Your task to perform on an android device: turn on sleep mode Image 0: 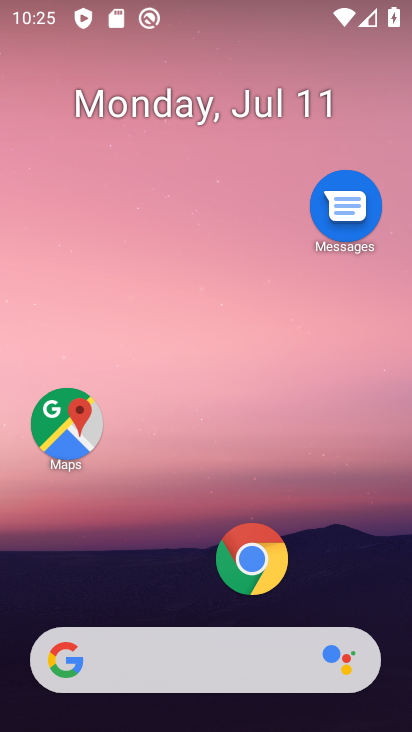
Step 0: drag from (354, 567) to (354, 231)
Your task to perform on an android device: turn on sleep mode Image 1: 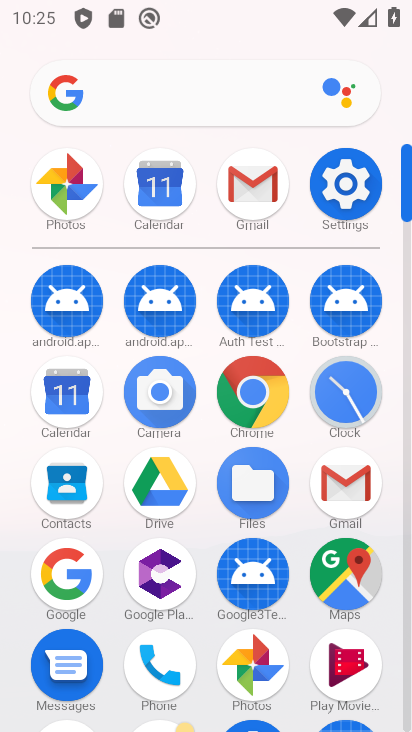
Step 1: click (348, 192)
Your task to perform on an android device: turn on sleep mode Image 2: 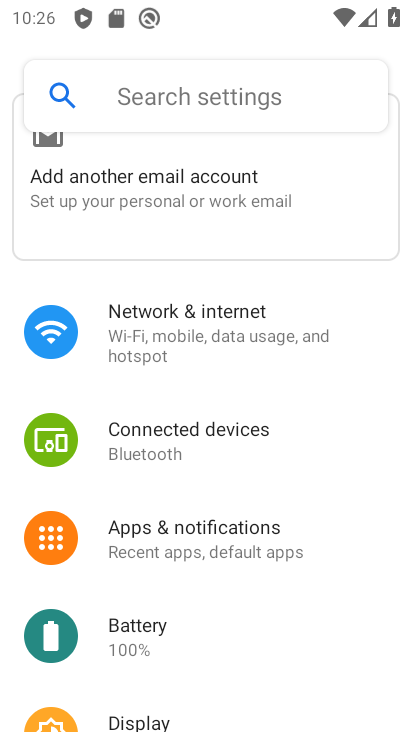
Step 2: drag from (341, 514) to (325, 399)
Your task to perform on an android device: turn on sleep mode Image 3: 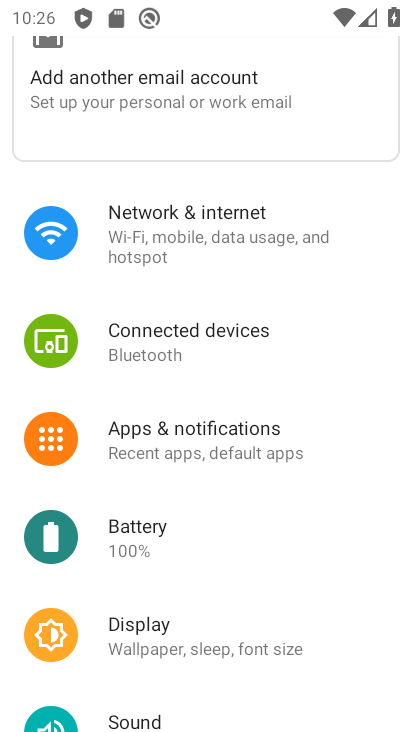
Step 3: drag from (324, 554) to (327, 414)
Your task to perform on an android device: turn on sleep mode Image 4: 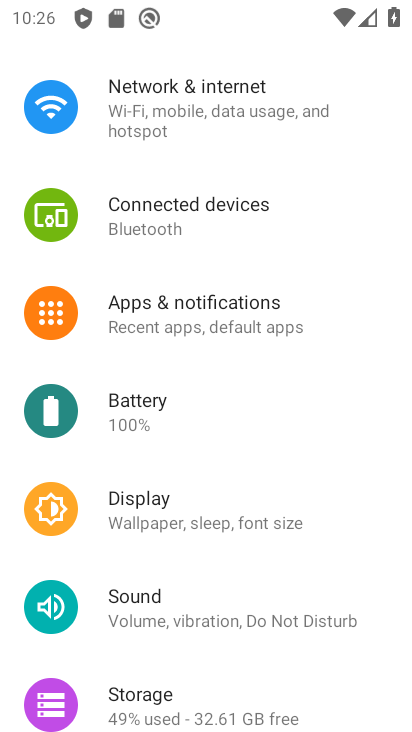
Step 4: drag from (324, 518) to (321, 360)
Your task to perform on an android device: turn on sleep mode Image 5: 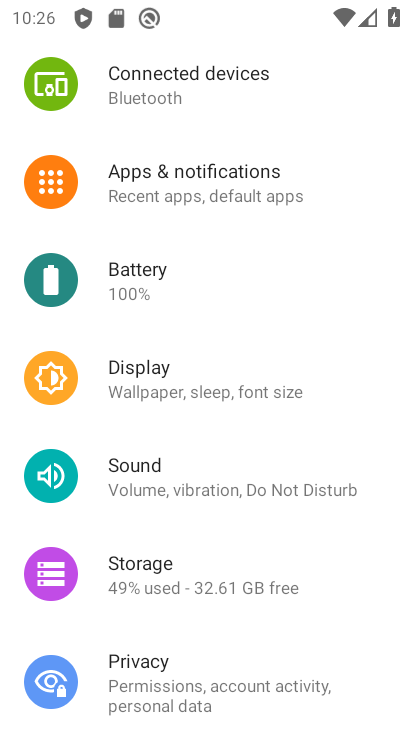
Step 5: drag from (323, 561) to (324, 315)
Your task to perform on an android device: turn on sleep mode Image 6: 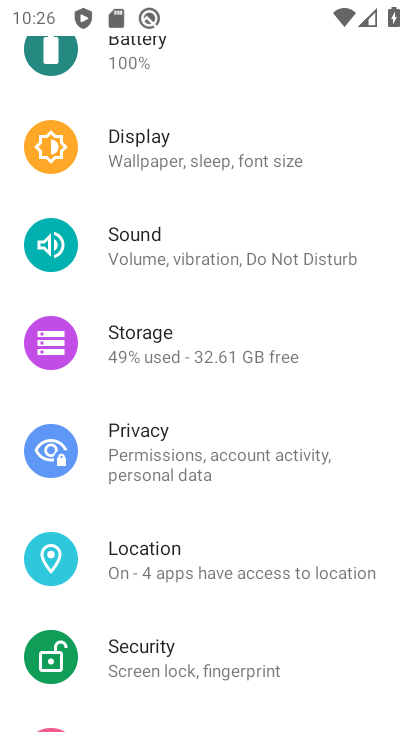
Step 6: drag from (348, 515) to (360, 319)
Your task to perform on an android device: turn on sleep mode Image 7: 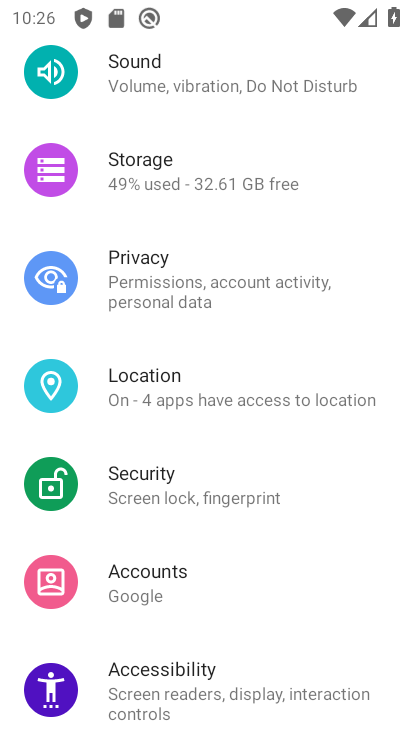
Step 7: drag from (342, 522) to (354, 339)
Your task to perform on an android device: turn on sleep mode Image 8: 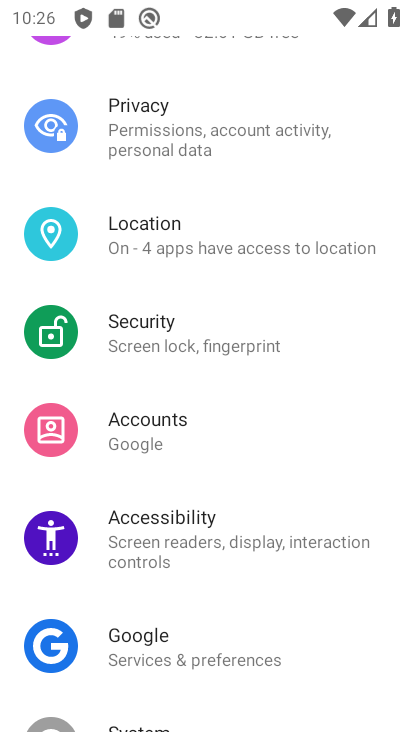
Step 8: drag from (347, 480) to (336, 332)
Your task to perform on an android device: turn on sleep mode Image 9: 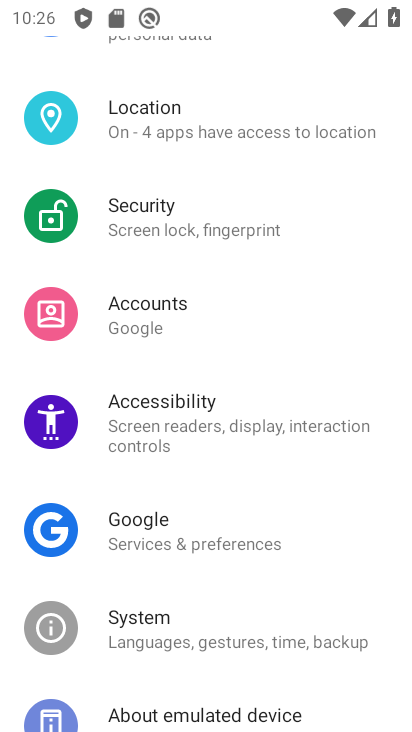
Step 9: drag from (327, 550) to (326, 377)
Your task to perform on an android device: turn on sleep mode Image 10: 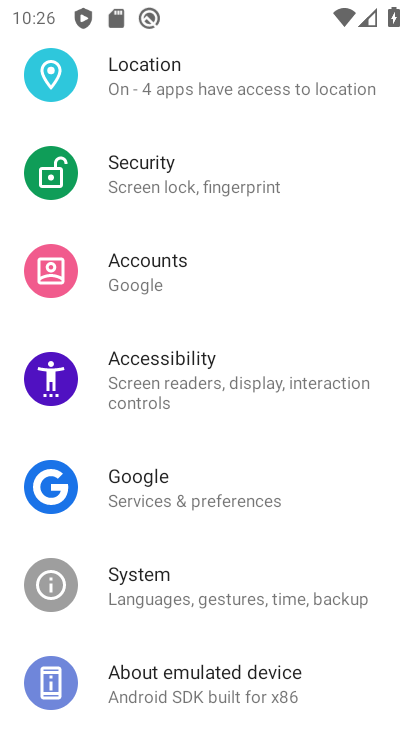
Step 10: drag from (327, 299) to (323, 430)
Your task to perform on an android device: turn on sleep mode Image 11: 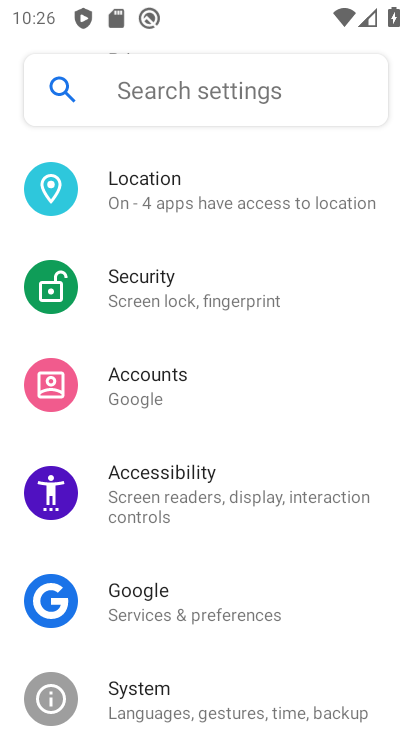
Step 11: drag from (314, 323) to (313, 561)
Your task to perform on an android device: turn on sleep mode Image 12: 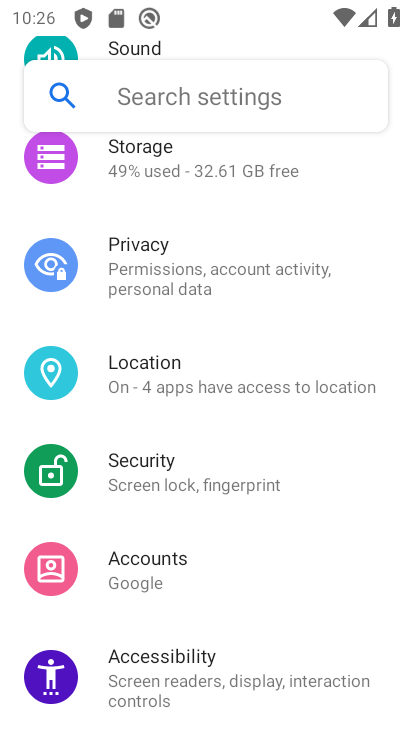
Step 12: drag from (304, 302) to (285, 468)
Your task to perform on an android device: turn on sleep mode Image 13: 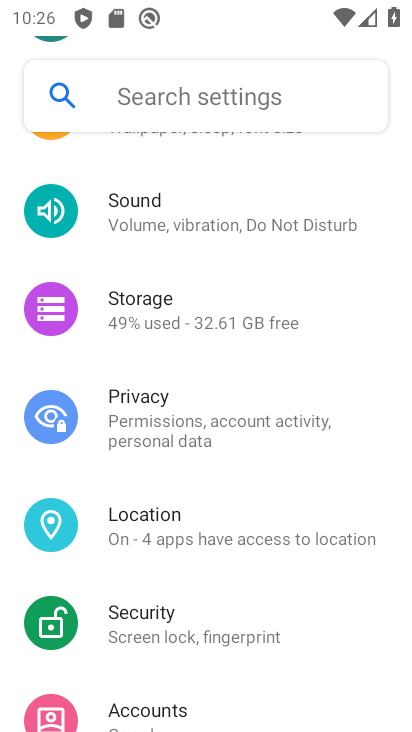
Step 13: drag from (309, 279) to (312, 434)
Your task to perform on an android device: turn on sleep mode Image 14: 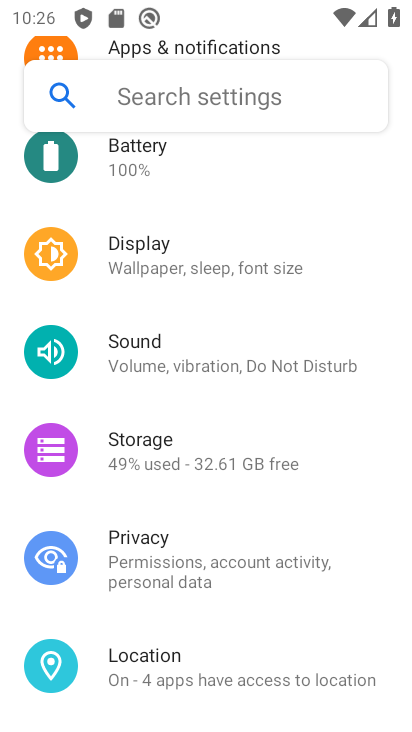
Step 14: drag from (330, 261) to (330, 398)
Your task to perform on an android device: turn on sleep mode Image 15: 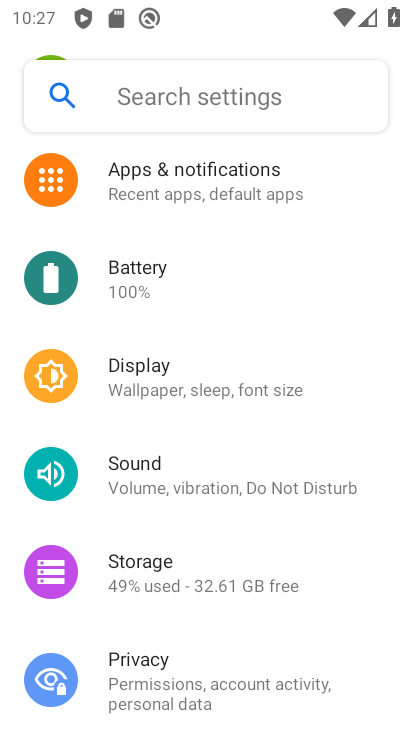
Step 15: click (191, 382)
Your task to perform on an android device: turn on sleep mode Image 16: 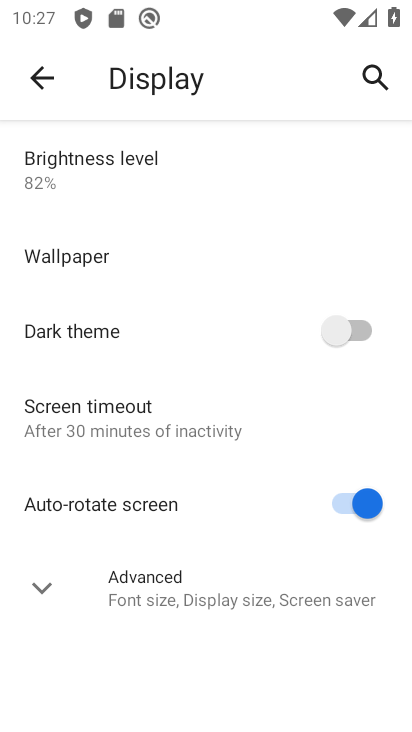
Step 16: click (217, 579)
Your task to perform on an android device: turn on sleep mode Image 17: 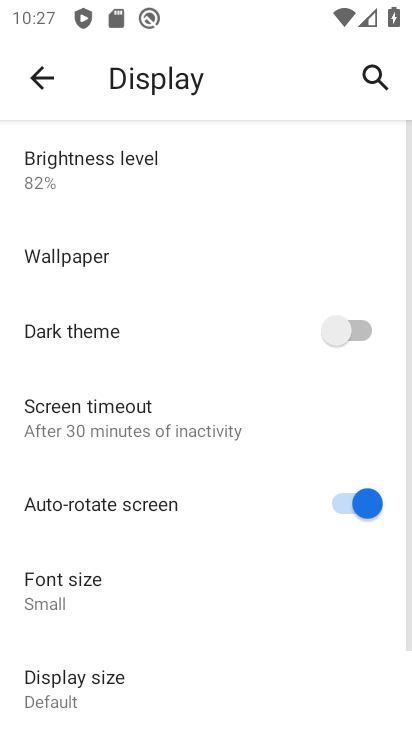
Step 17: task complete